Your task to perform on an android device: Go to calendar. Show me events next week Image 0: 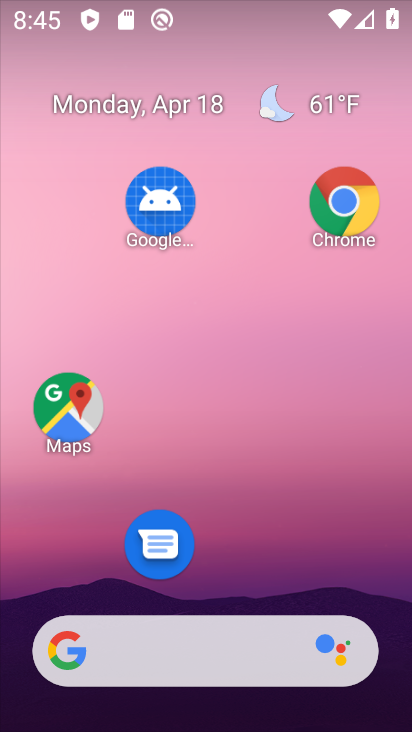
Step 0: drag from (233, 588) to (228, 19)
Your task to perform on an android device: Go to calendar. Show me events next week Image 1: 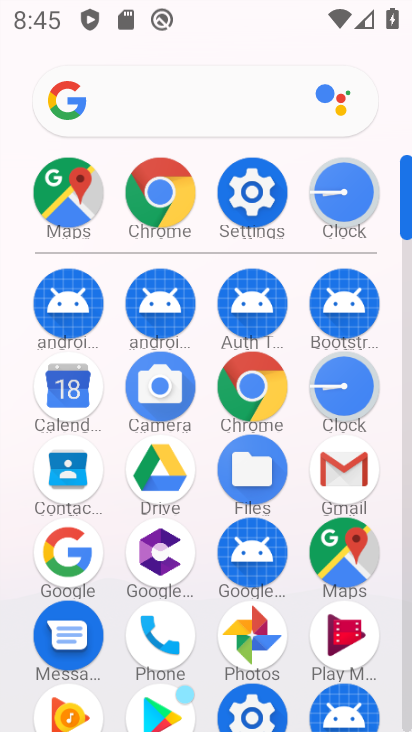
Step 1: click (71, 398)
Your task to perform on an android device: Go to calendar. Show me events next week Image 2: 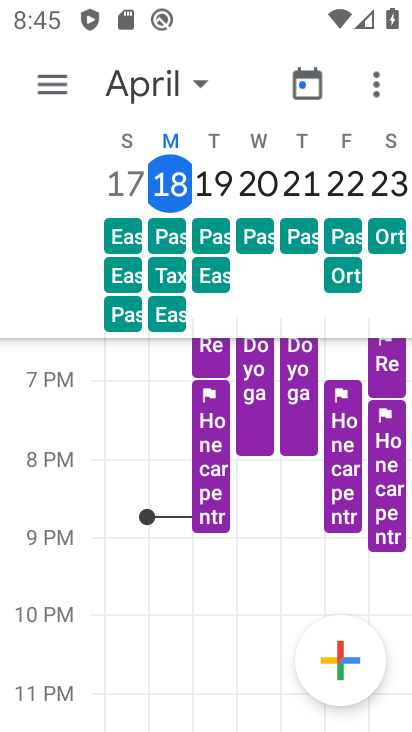
Step 2: click (24, 91)
Your task to perform on an android device: Go to calendar. Show me events next week Image 3: 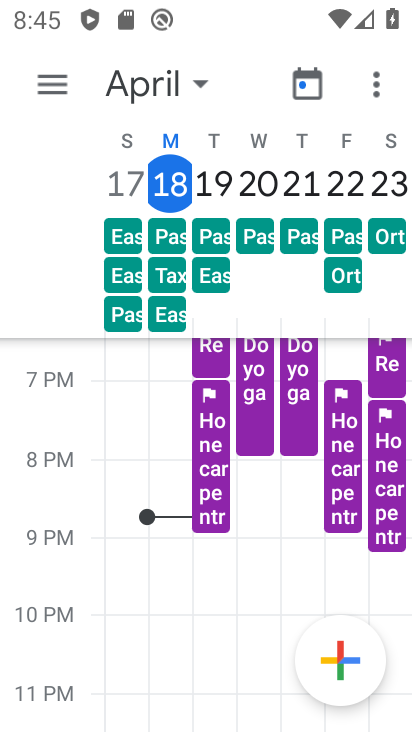
Step 3: click (54, 89)
Your task to perform on an android device: Go to calendar. Show me events next week Image 4: 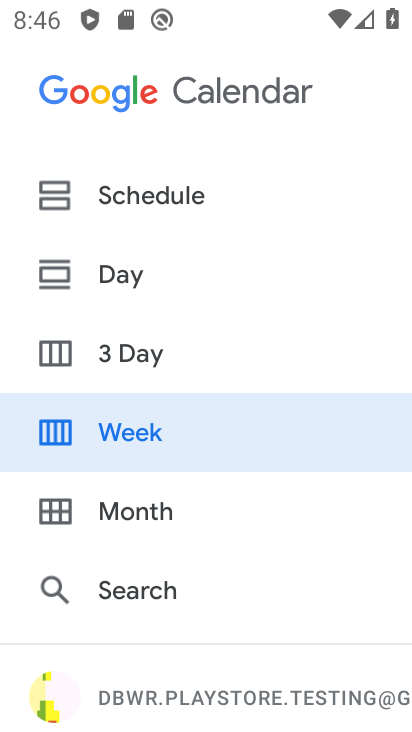
Step 4: click (176, 453)
Your task to perform on an android device: Go to calendar. Show me events next week Image 5: 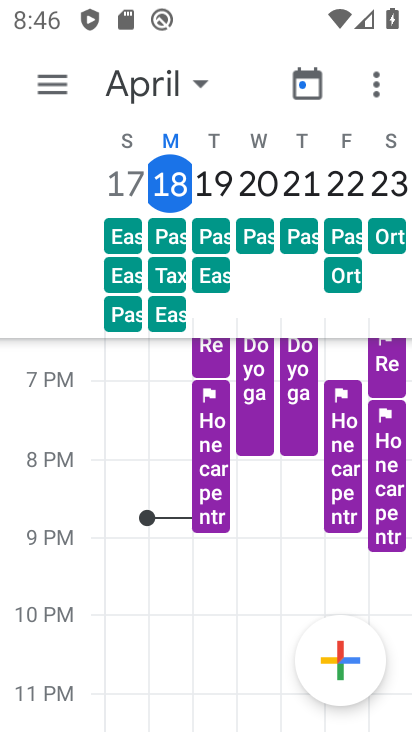
Step 5: task complete